Your task to perform on an android device: Open location settings Image 0: 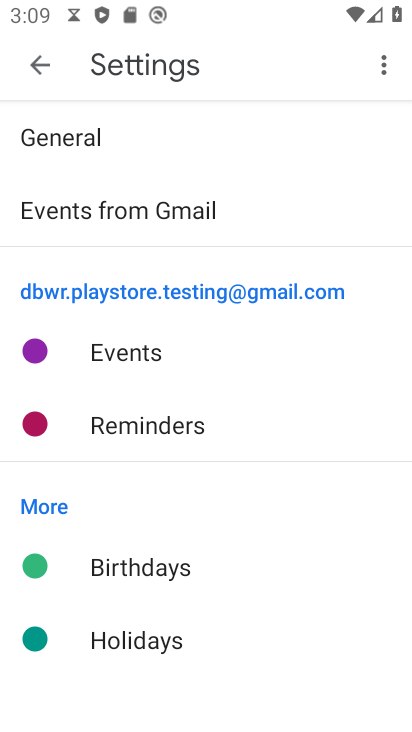
Step 0: press back button
Your task to perform on an android device: Open location settings Image 1: 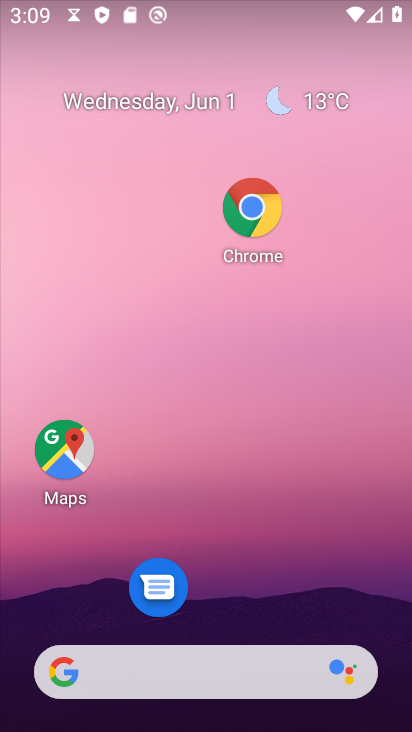
Step 1: drag from (235, 542) to (160, 38)
Your task to perform on an android device: Open location settings Image 2: 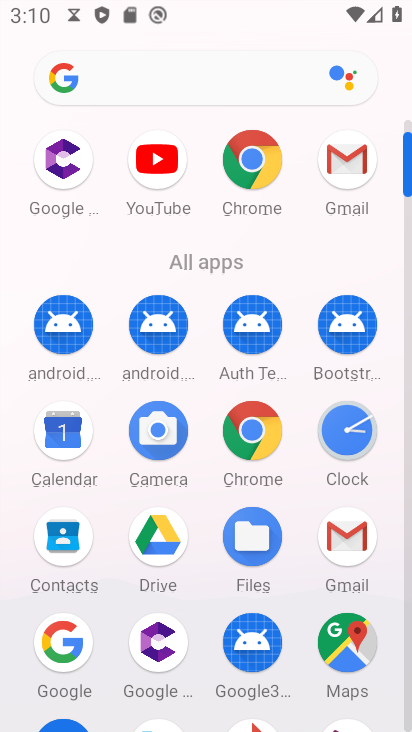
Step 2: drag from (187, 572) to (161, 294)
Your task to perform on an android device: Open location settings Image 3: 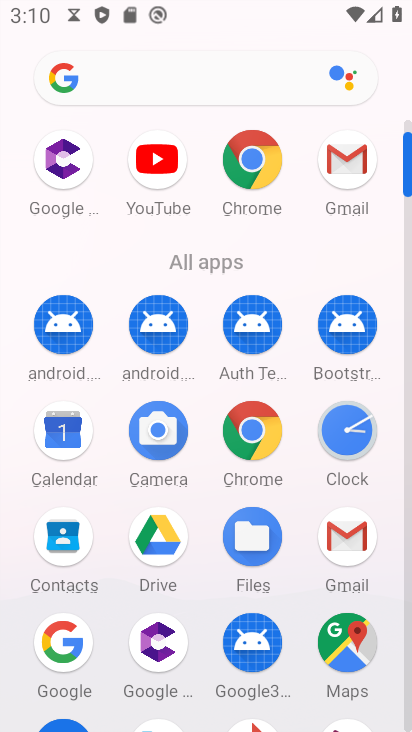
Step 3: drag from (213, 550) to (194, 256)
Your task to perform on an android device: Open location settings Image 4: 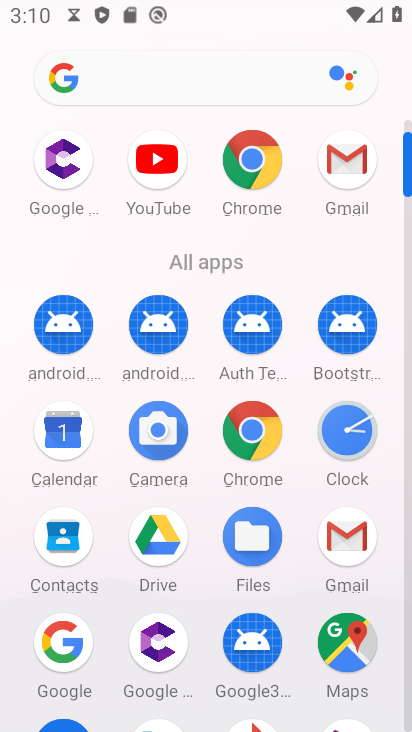
Step 4: drag from (226, 619) to (161, 272)
Your task to perform on an android device: Open location settings Image 5: 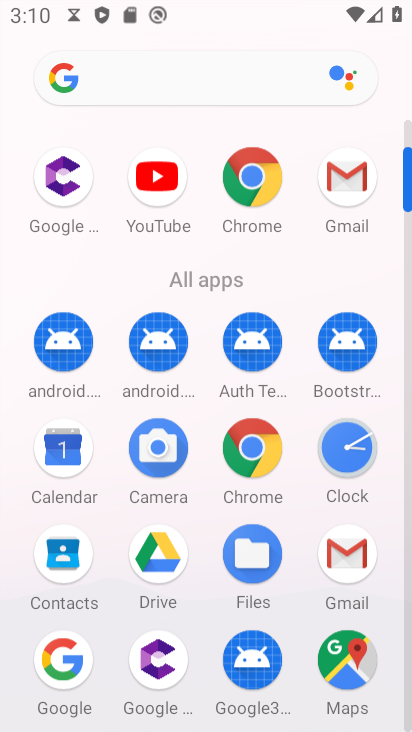
Step 5: drag from (153, 588) to (183, 228)
Your task to perform on an android device: Open location settings Image 6: 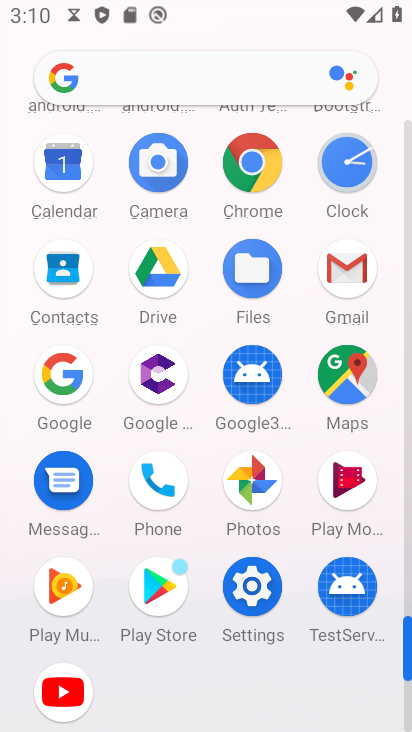
Step 6: click (253, 608)
Your task to perform on an android device: Open location settings Image 7: 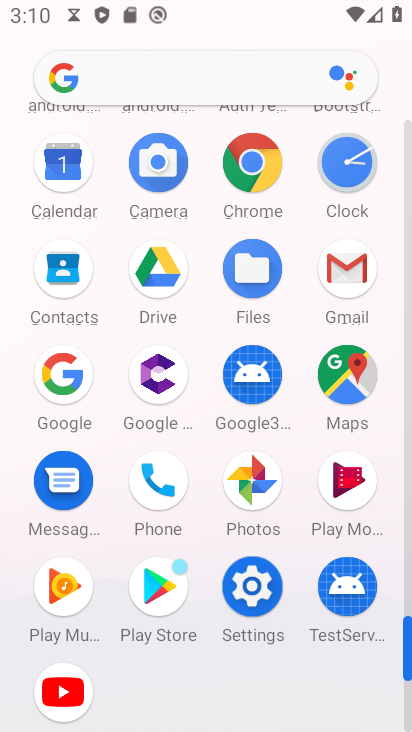
Step 7: click (254, 593)
Your task to perform on an android device: Open location settings Image 8: 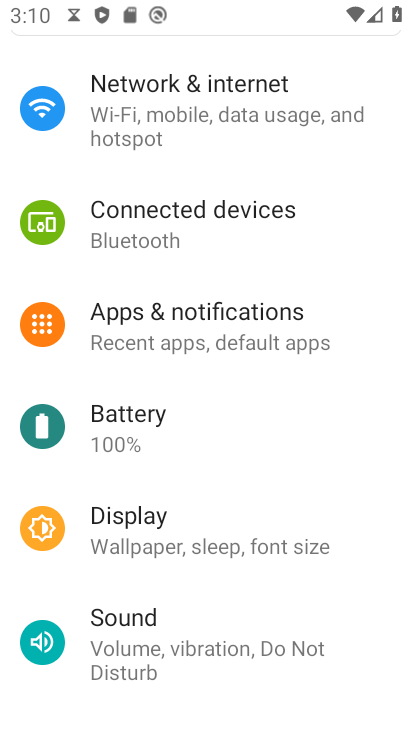
Step 8: drag from (176, 179) to (227, 458)
Your task to perform on an android device: Open location settings Image 9: 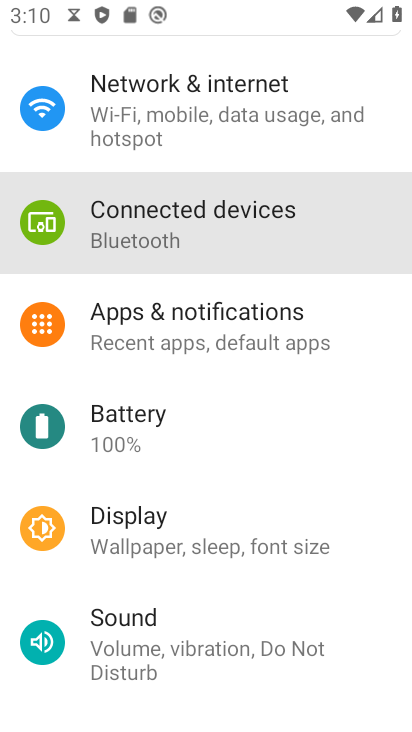
Step 9: drag from (148, 169) to (185, 413)
Your task to perform on an android device: Open location settings Image 10: 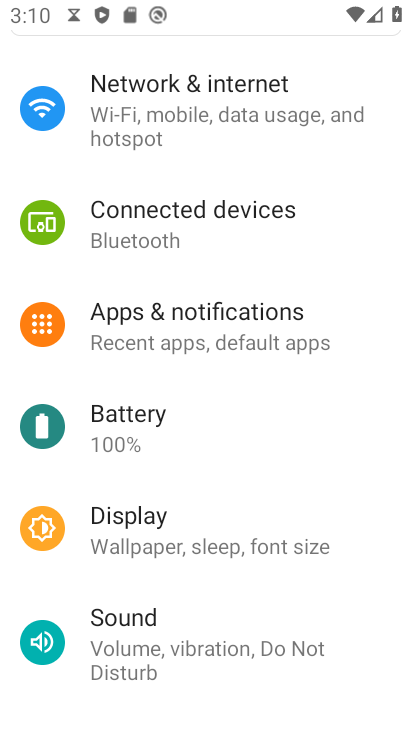
Step 10: drag from (190, 516) to (191, 83)
Your task to perform on an android device: Open location settings Image 11: 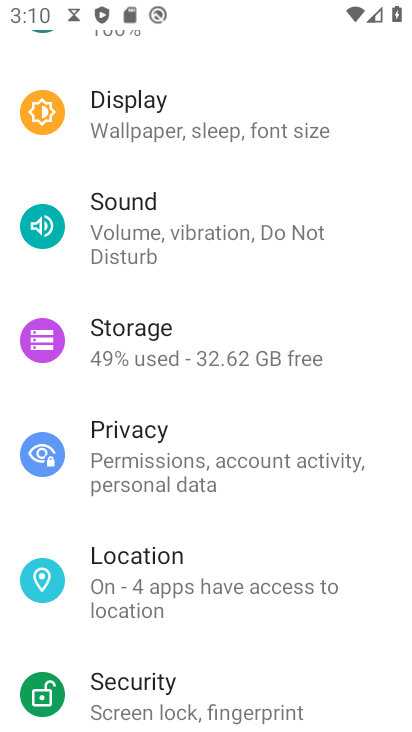
Step 11: drag from (222, 439) to (198, 122)
Your task to perform on an android device: Open location settings Image 12: 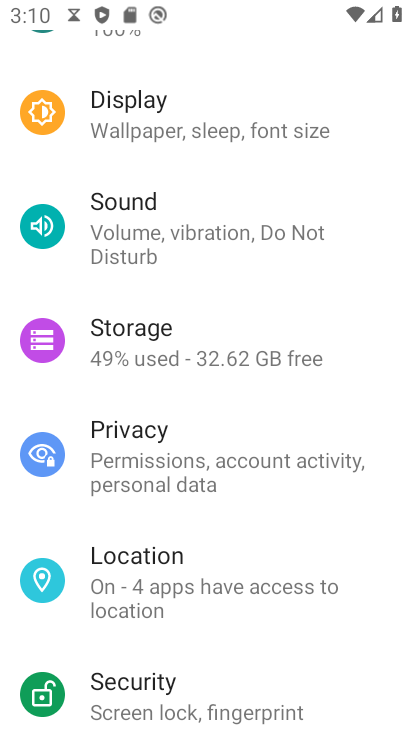
Step 12: click (105, 505)
Your task to perform on an android device: Open location settings Image 13: 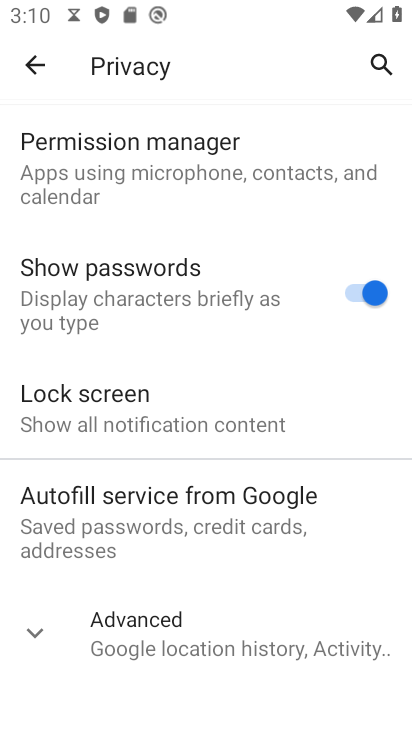
Step 13: click (132, 557)
Your task to perform on an android device: Open location settings Image 14: 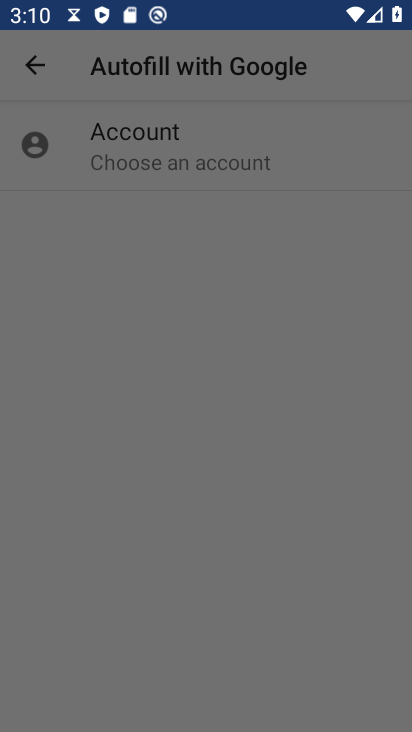
Step 14: click (23, 84)
Your task to perform on an android device: Open location settings Image 15: 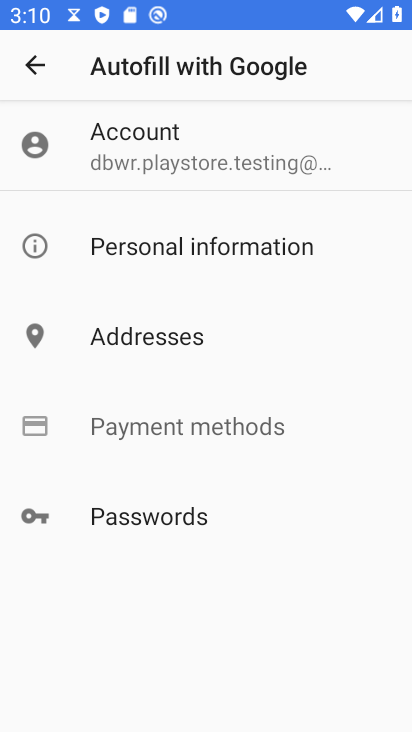
Step 15: click (32, 64)
Your task to perform on an android device: Open location settings Image 16: 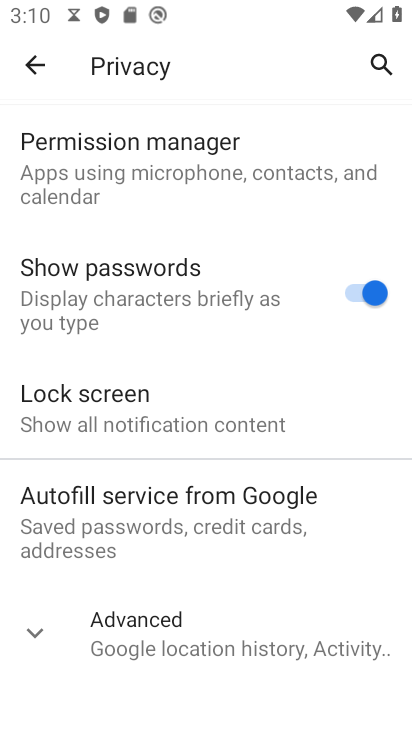
Step 16: click (27, 63)
Your task to perform on an android device: Open location settings Image 17: 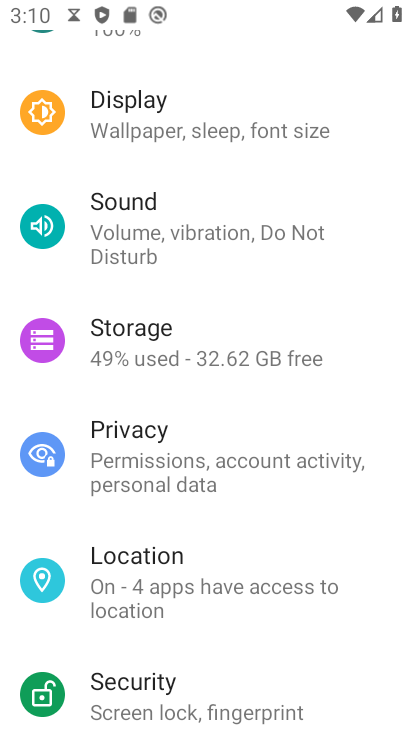
Step 17: click (152, 572)
Your task to perform on an android device: Open location settings Image 18: 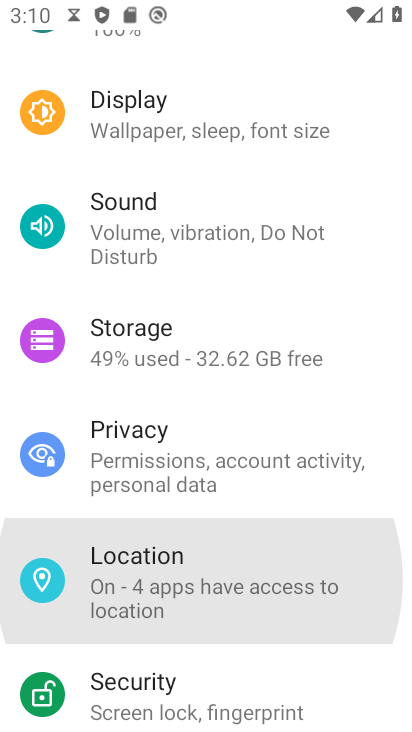
Step 18: click (152, 572)
Your task to perform on an android device: Open location settings Image 19: 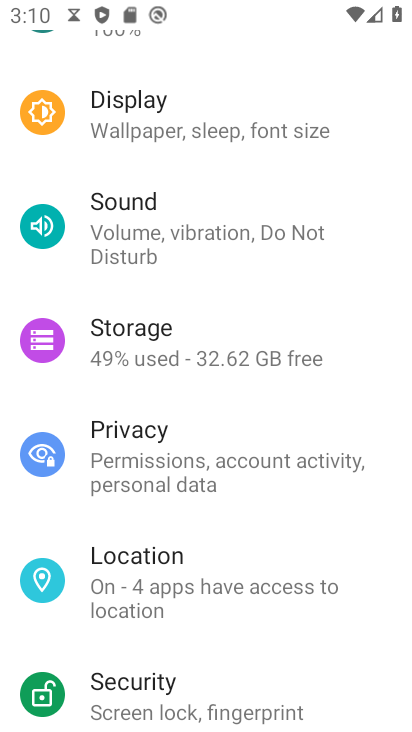
Step 19: click (152, 572)
Your task to perform on an android device: Open location settings Image 20: 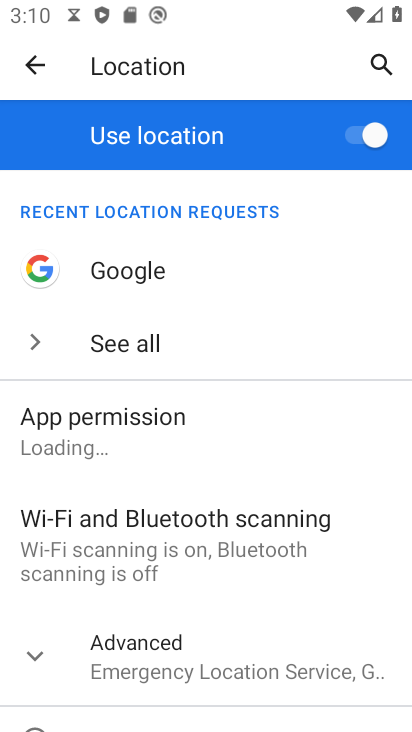
Step 20: click (126, 652)
Your task to perform on an android device: Open location settings Image 21: 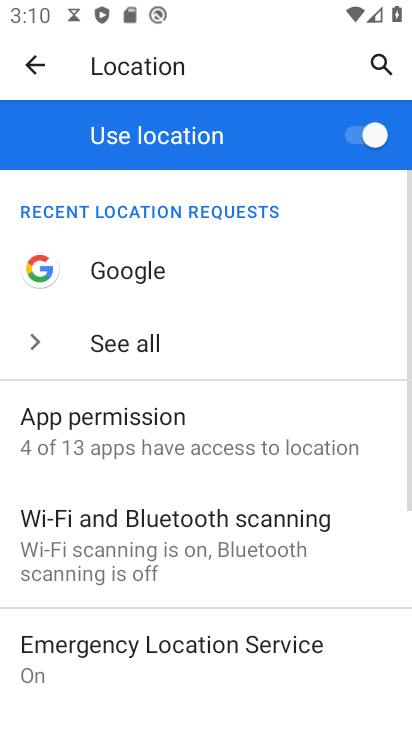
Step 21: task complete